Your task to perform on an android device: turn off location history Image 0: 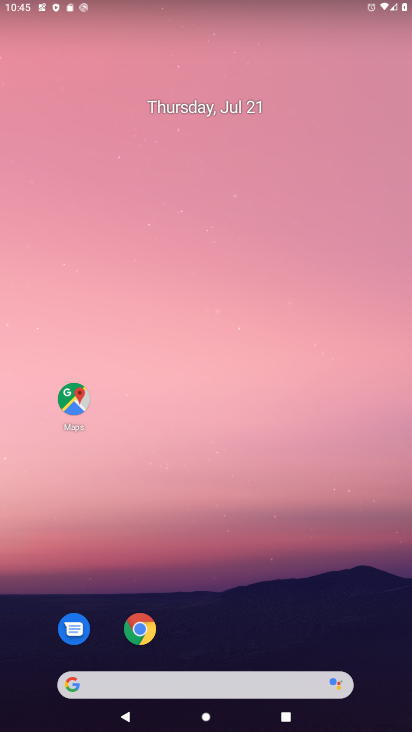
Step 0: drag from (267, 624) to (298, 1)
Your task to perform on an android device: turn off location history Image 1: 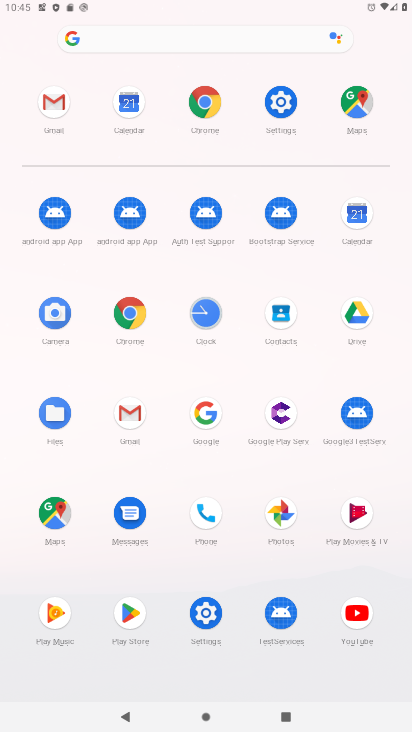
Step 1: click (53, 507)
Your task to perform on an android device: turn off location history Image 2: 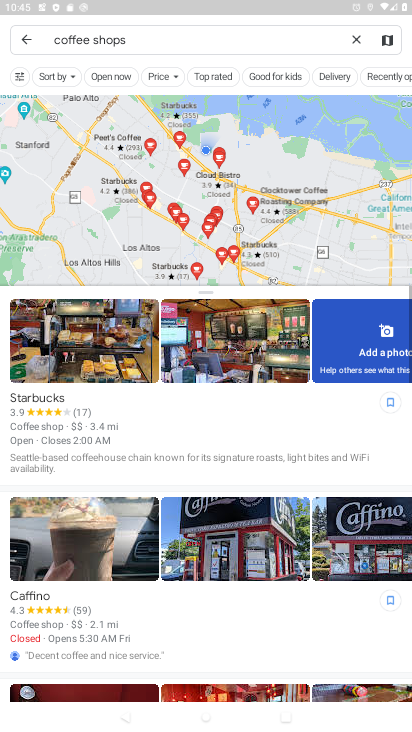
Step 2: click (18, 35)
Your task to perform on an android device: turn off location history Image 3: 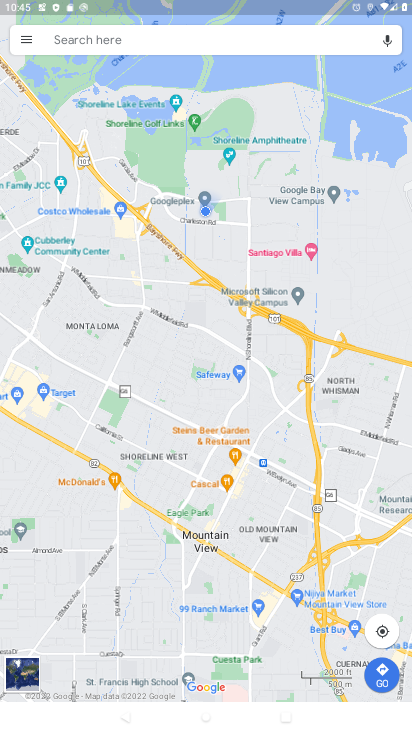
Step 3: click (18, 35)
Your task to perform on an android device: turn off location history Image 4: 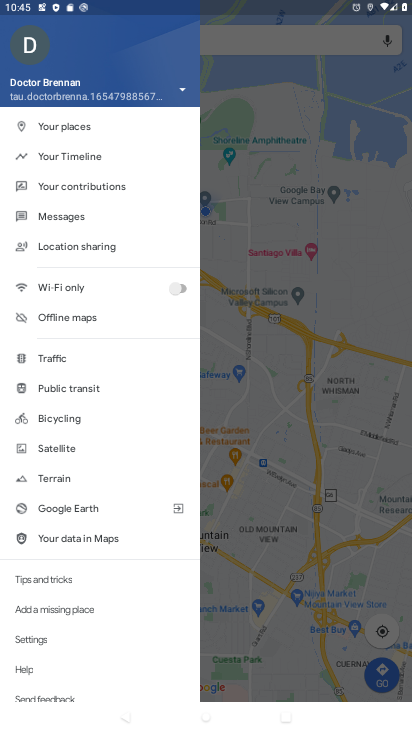
Step 4: click (53, 151)
Your task to perform on an android device: turn off location history Image 5: 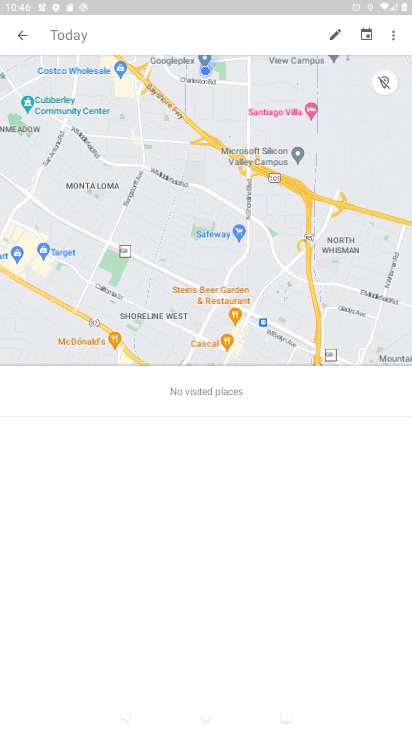
Step 5: click (394, 37)
Your task to perform on an android device: turn off location history Image 6: 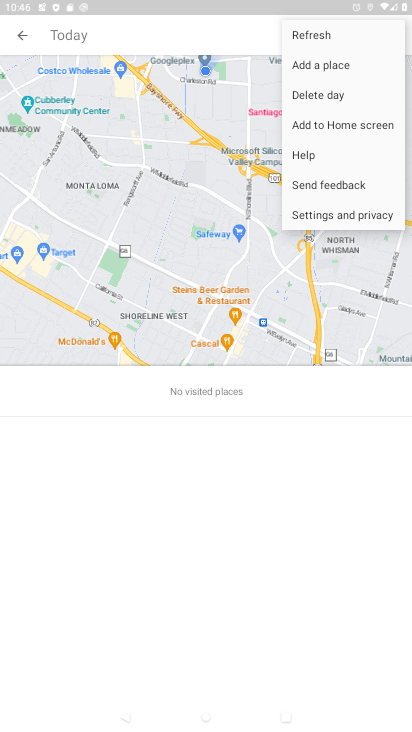
Step 6: click (308, 217)
Your task to perform on an android device: turn off location history Image 7: 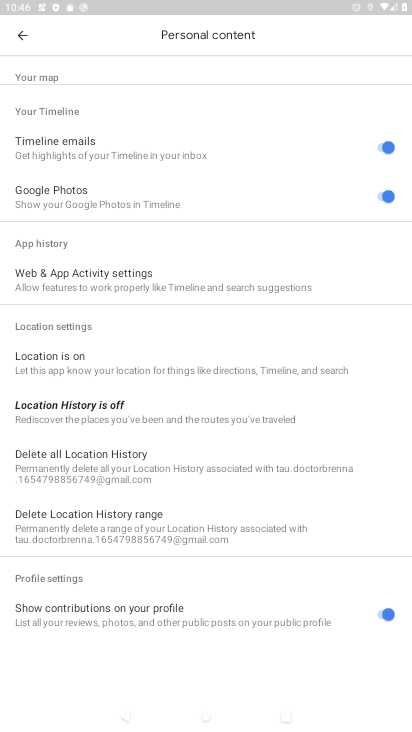
Step 7: click (52, 405)
Your task to perform on an android device: turn off location history Image 8: 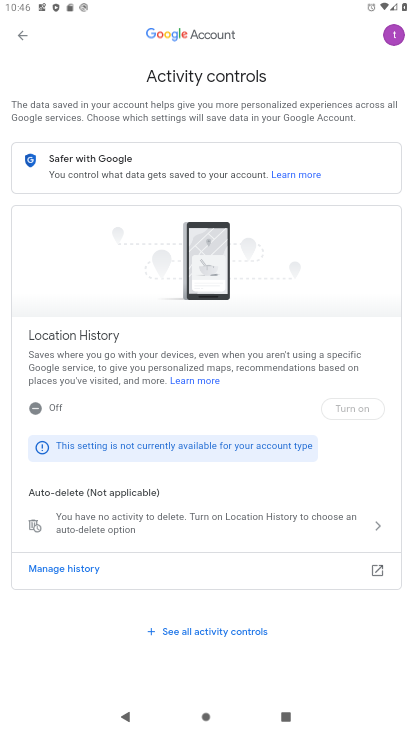
Step 8: task complete